Your task to perform on an android device: open app "Google Find My Device" (install if not already installed) Image 0: 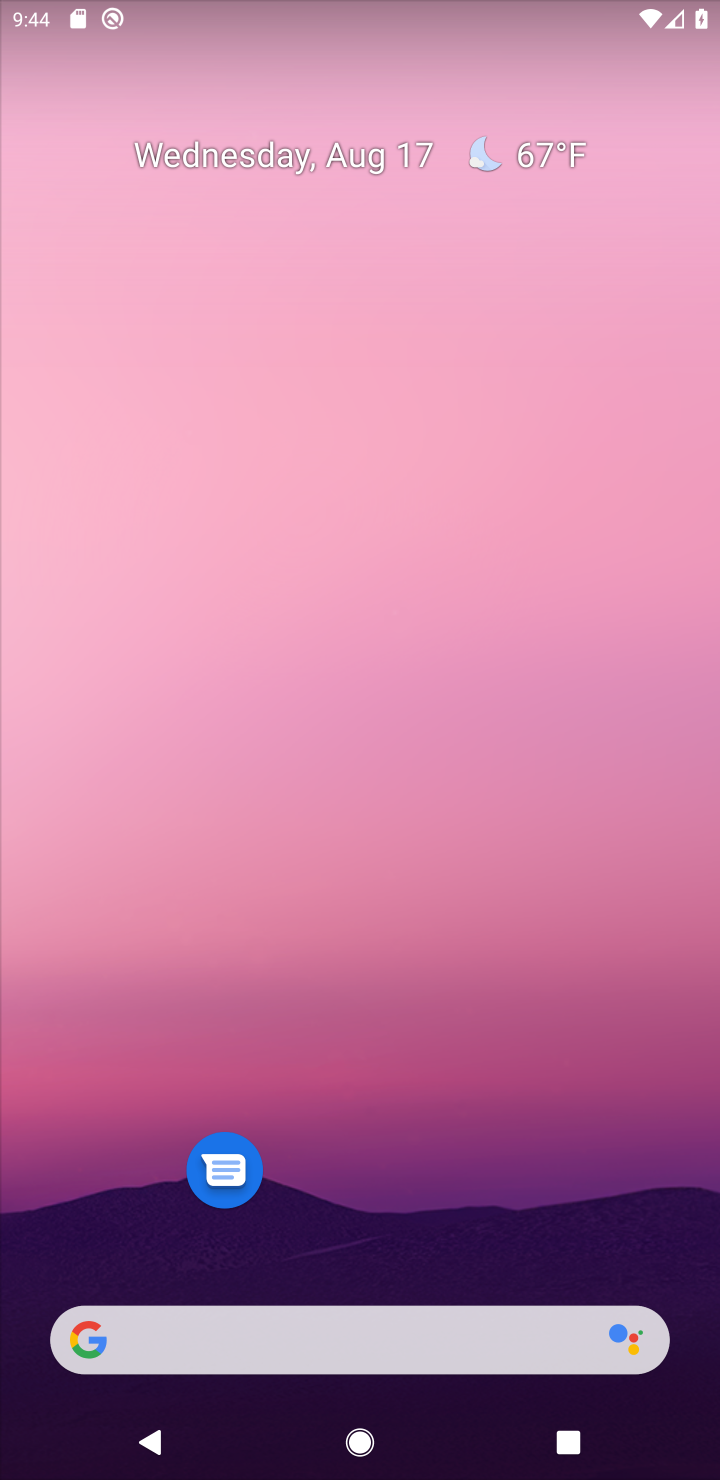
Step 0: drag from (392, 1247) to (394, 219)
Your task to perform on an android device: open app "Google Find My Device" (install if not already installed) Image 1: 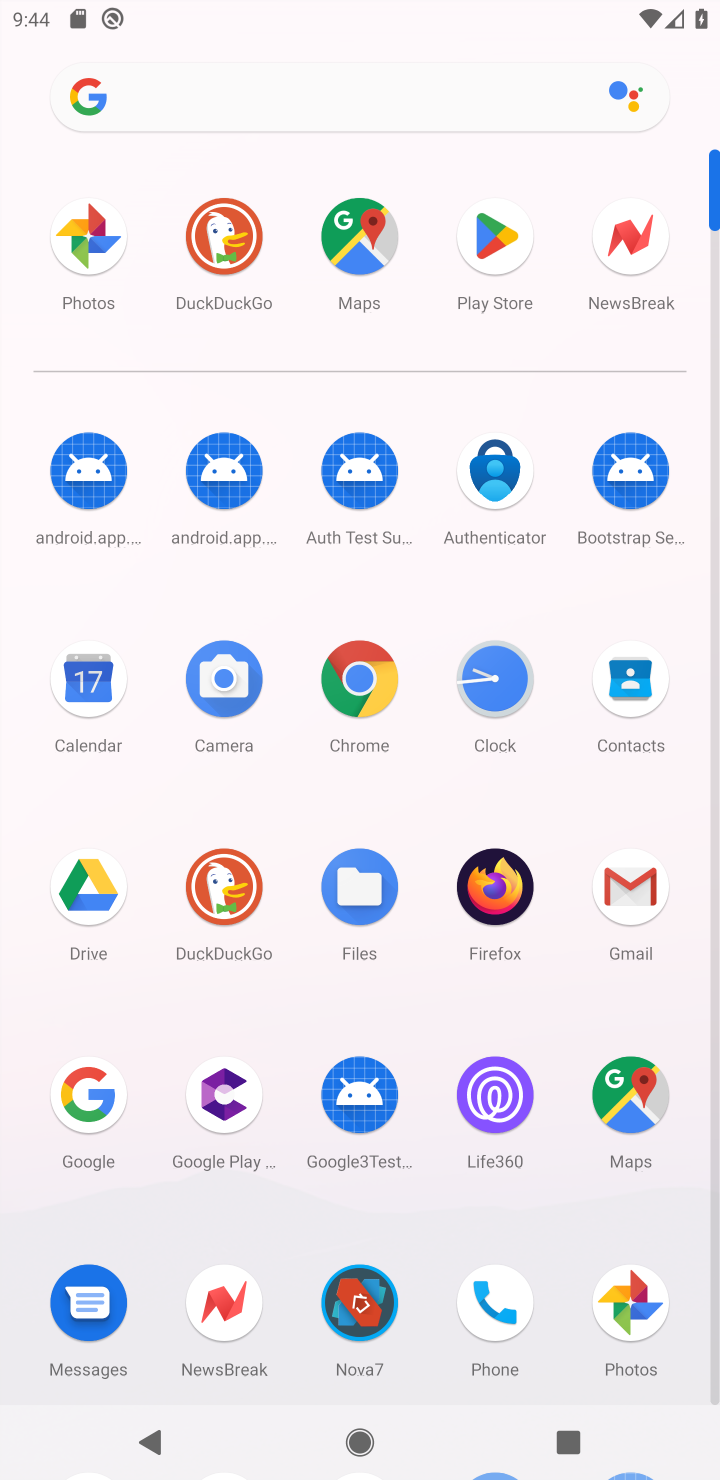
Step 1: click (470, 274)
Your task to perform on an android device: open app "Google Find My Device" (install if not already installed) Image 2: 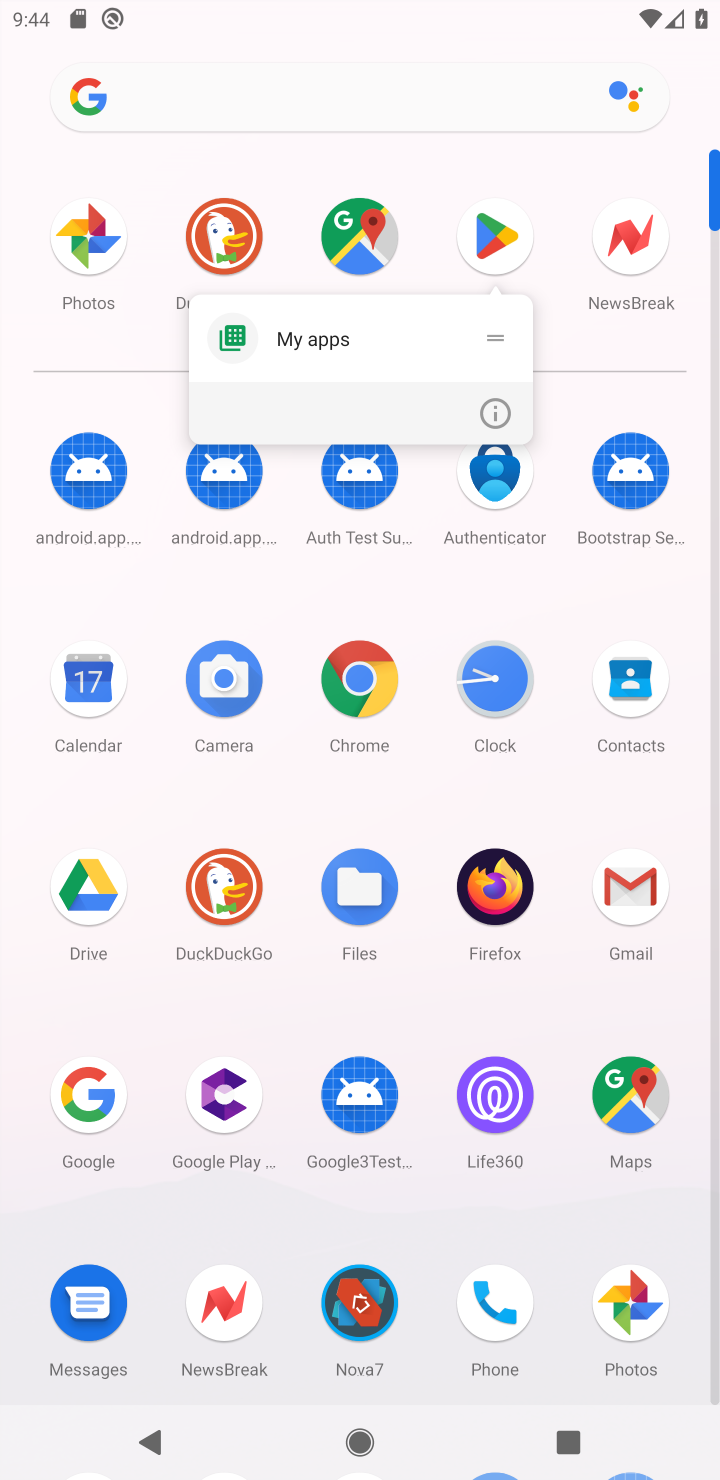
Step 2: click (489, 225)
Your task to perform on an android device: open app "Google Find My Device" (install if not already installed) Image 3: 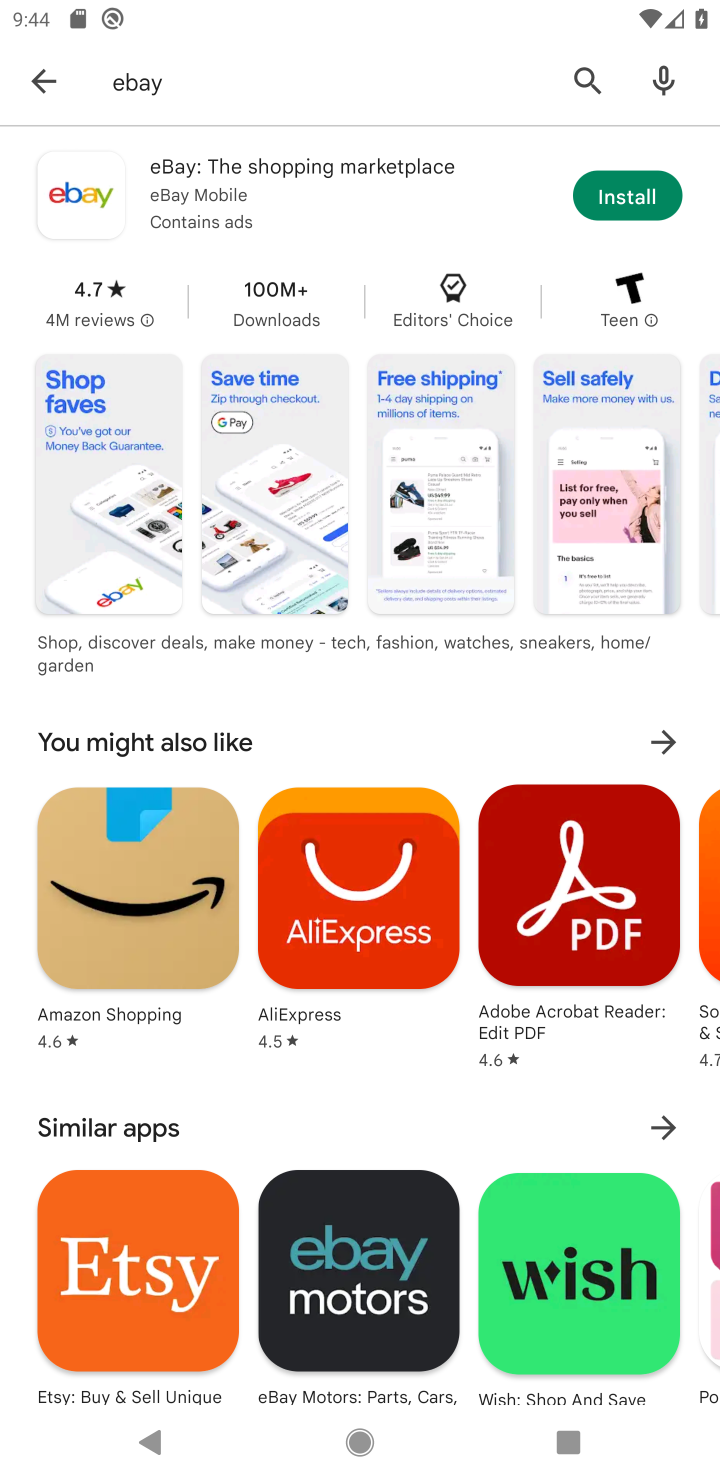
Step 3: click (46, 75)
Your task to perform on an android device: open app "Google Find My Device" (install if not already installed) Image 4: 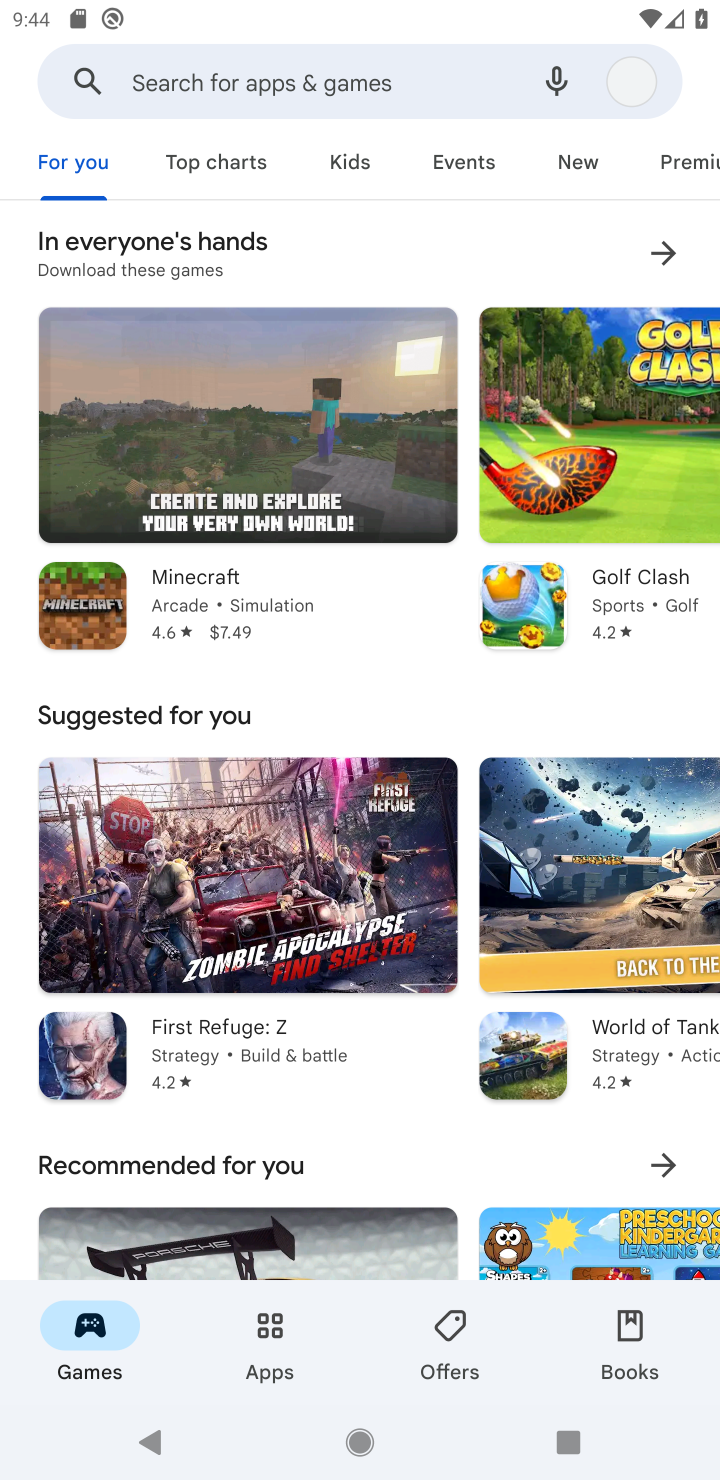
Step 4: click (309, 88)
Your task to perform on an android device: open app "Google Find My Device" (install if not already installed) Image 5: 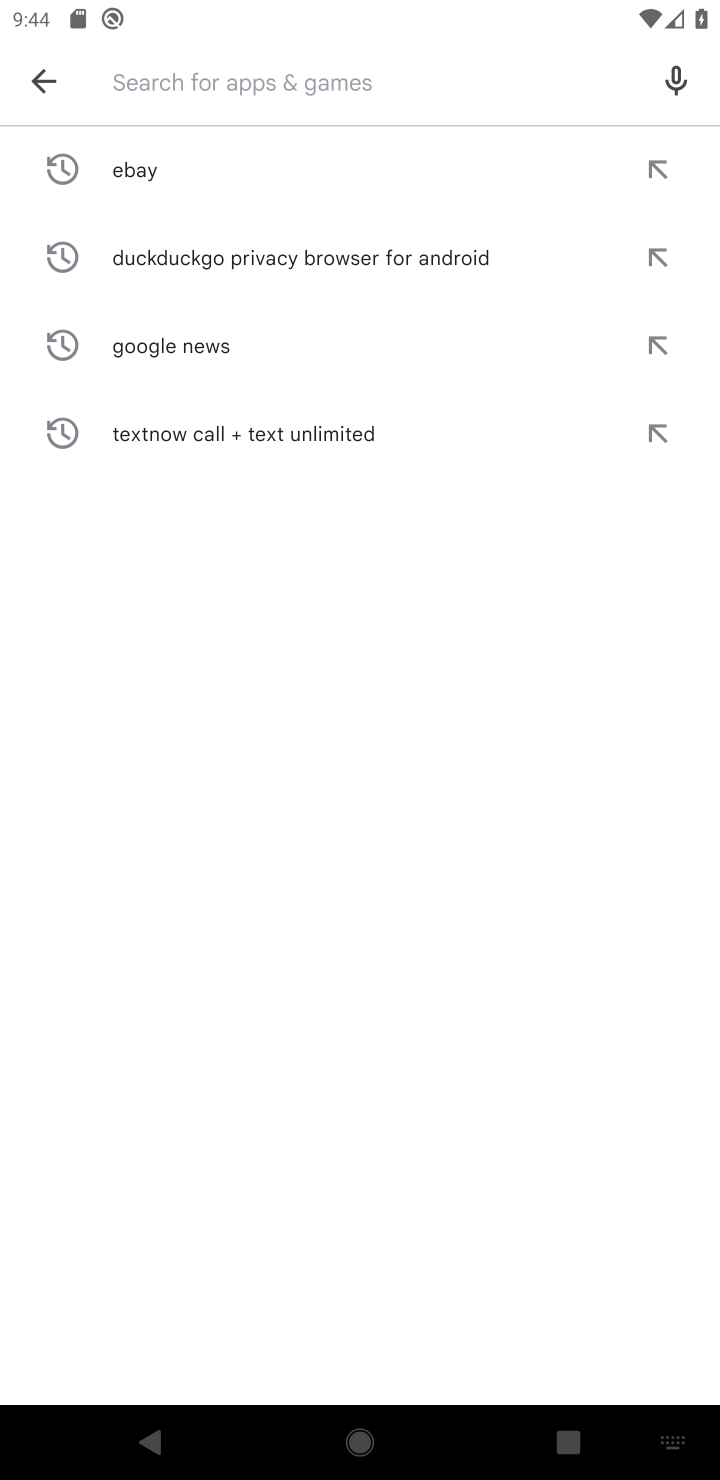
Step 5: type "Google Find My Device"
Your task to perform on an android device: open app "Google Find My Device" (install if not already installed) Image 6: 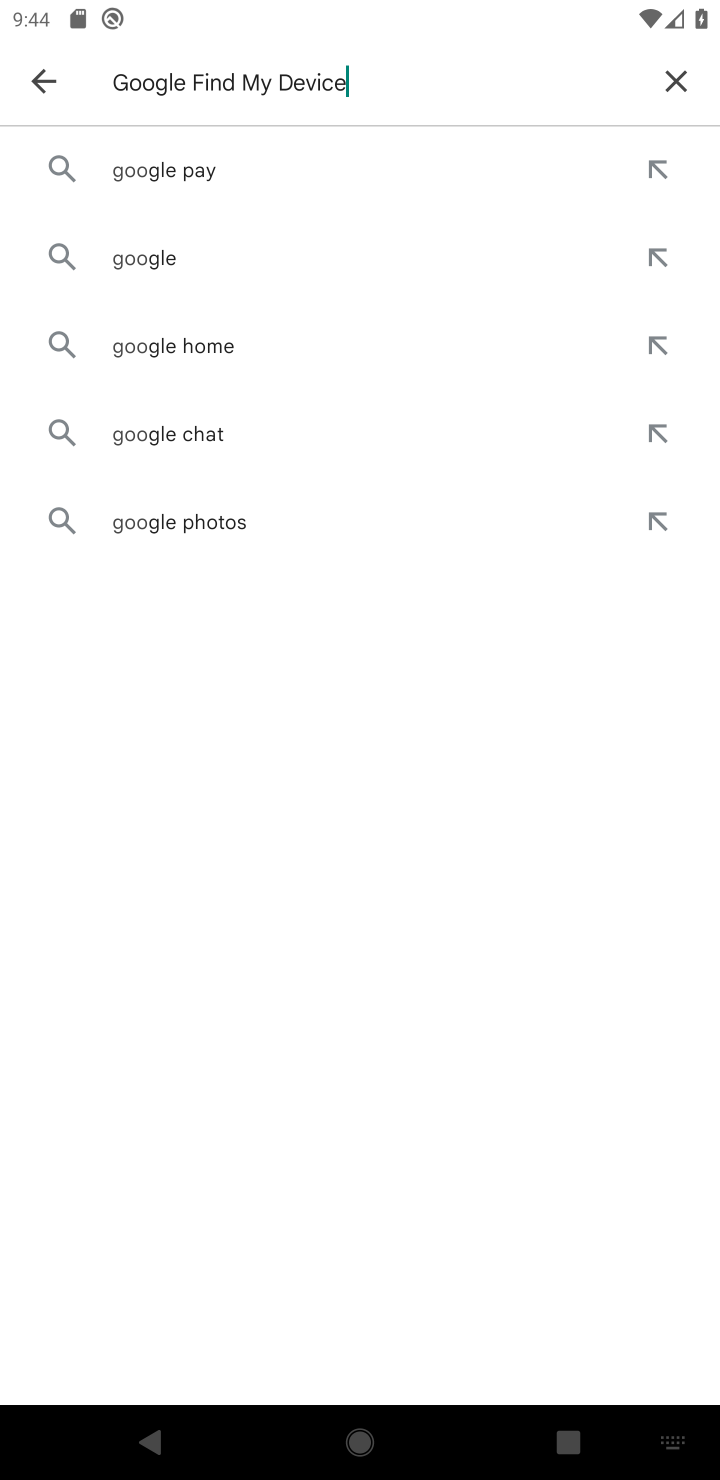
Step 6: type ""
Your task to perform on an android device: open app "Google Find My Device" (install if not already installed) Image 7: 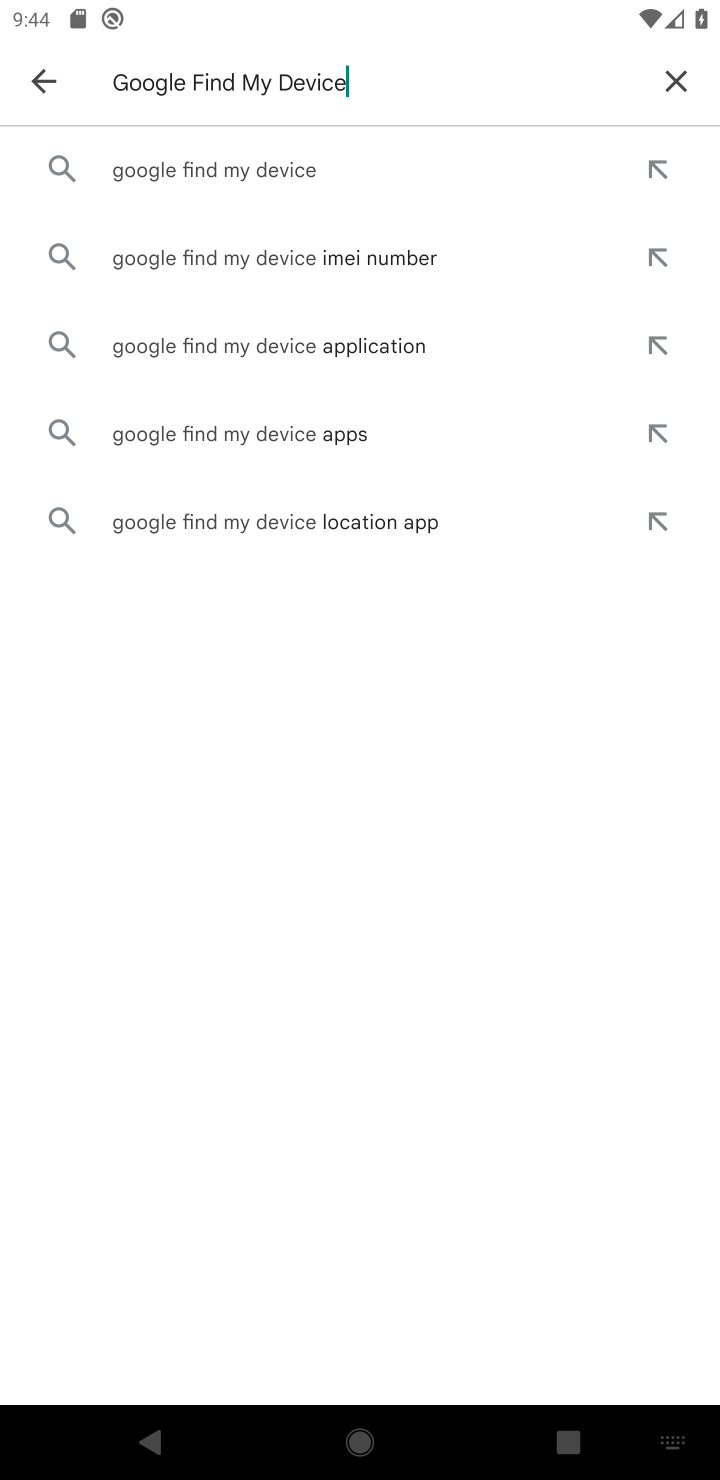
Step 7: click (145, 160)
Your task to perform on an android device: open app "Google Find My Device" (install if not already installed) Image 8: 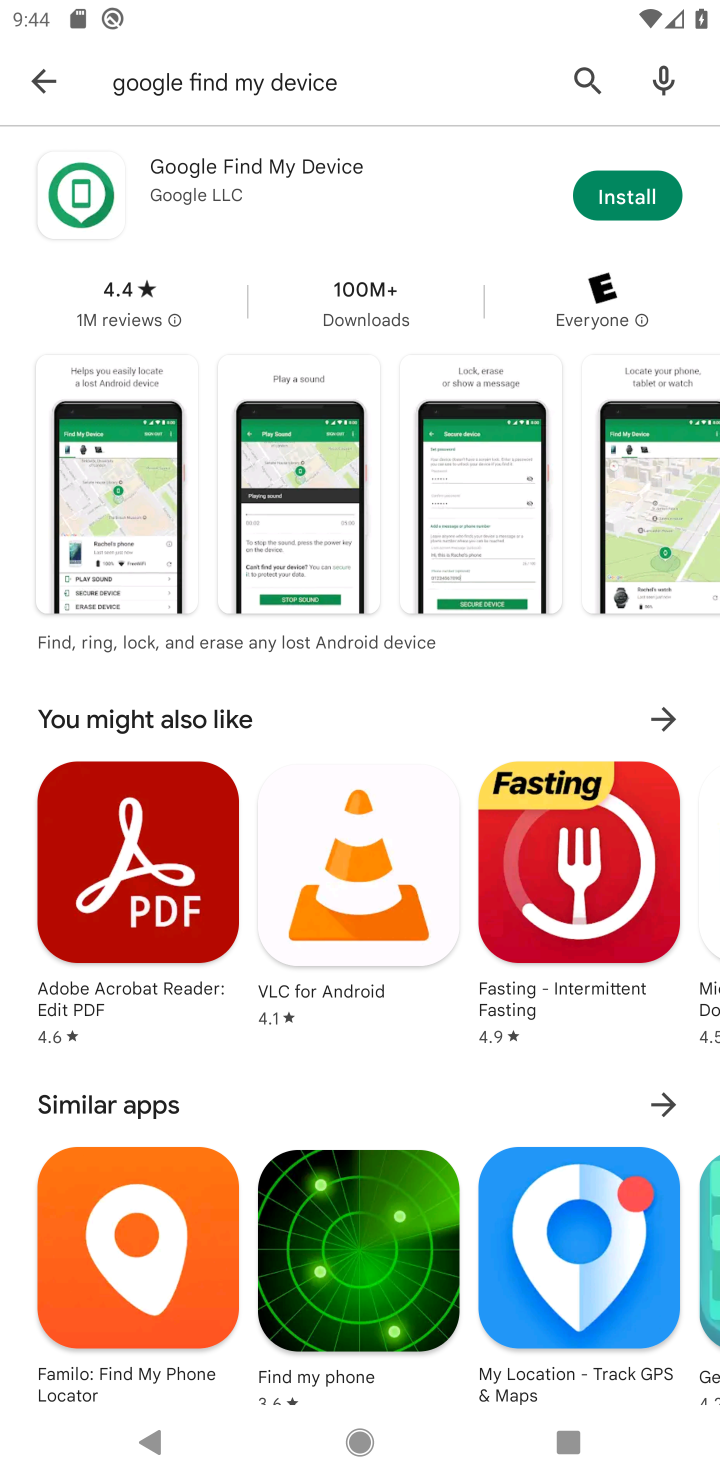
Step 8: click (606, 216)
Your task to perform on an android device: open app "Google Find My Device" (install if not already installed) Image 9: 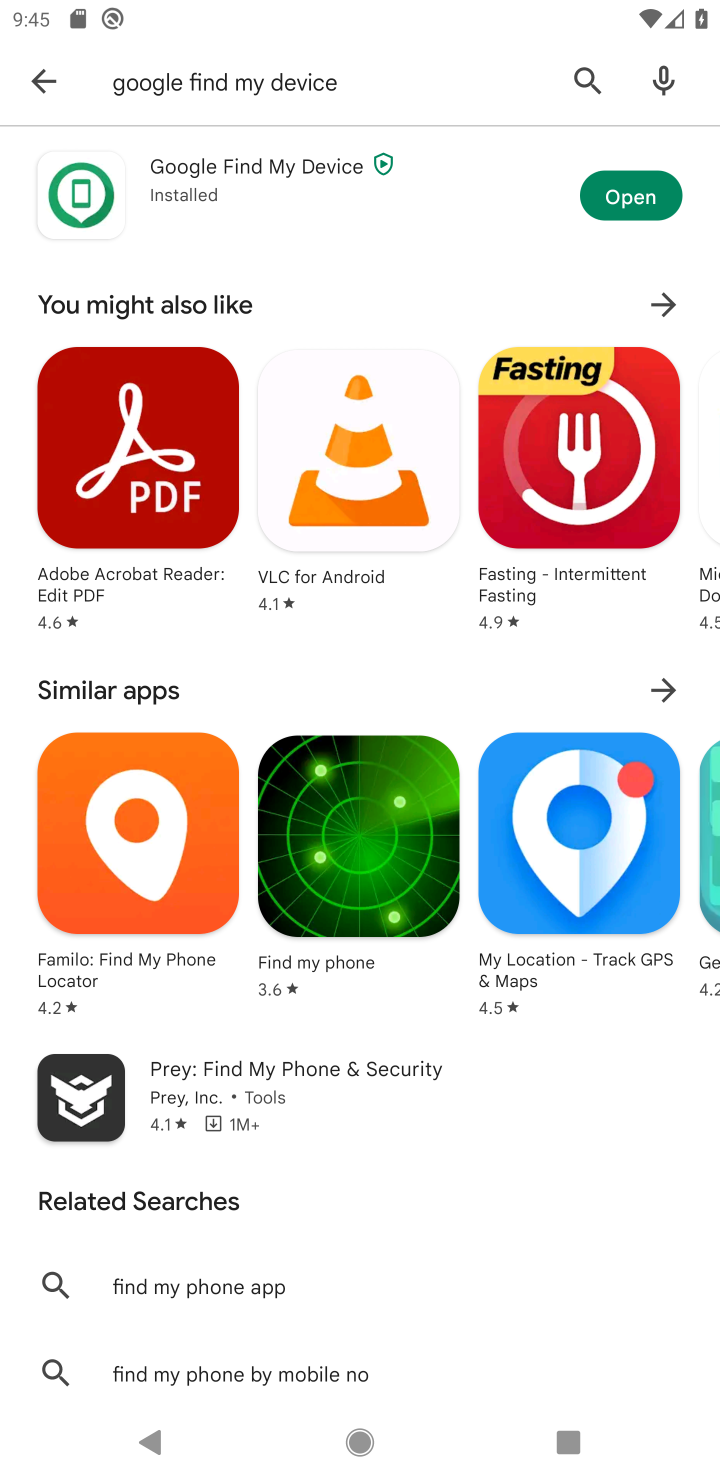
Step 9: click (655, 189)
Your task to perform on an android device: open app "Google Find My Device" (install if not already installed) Image 10: 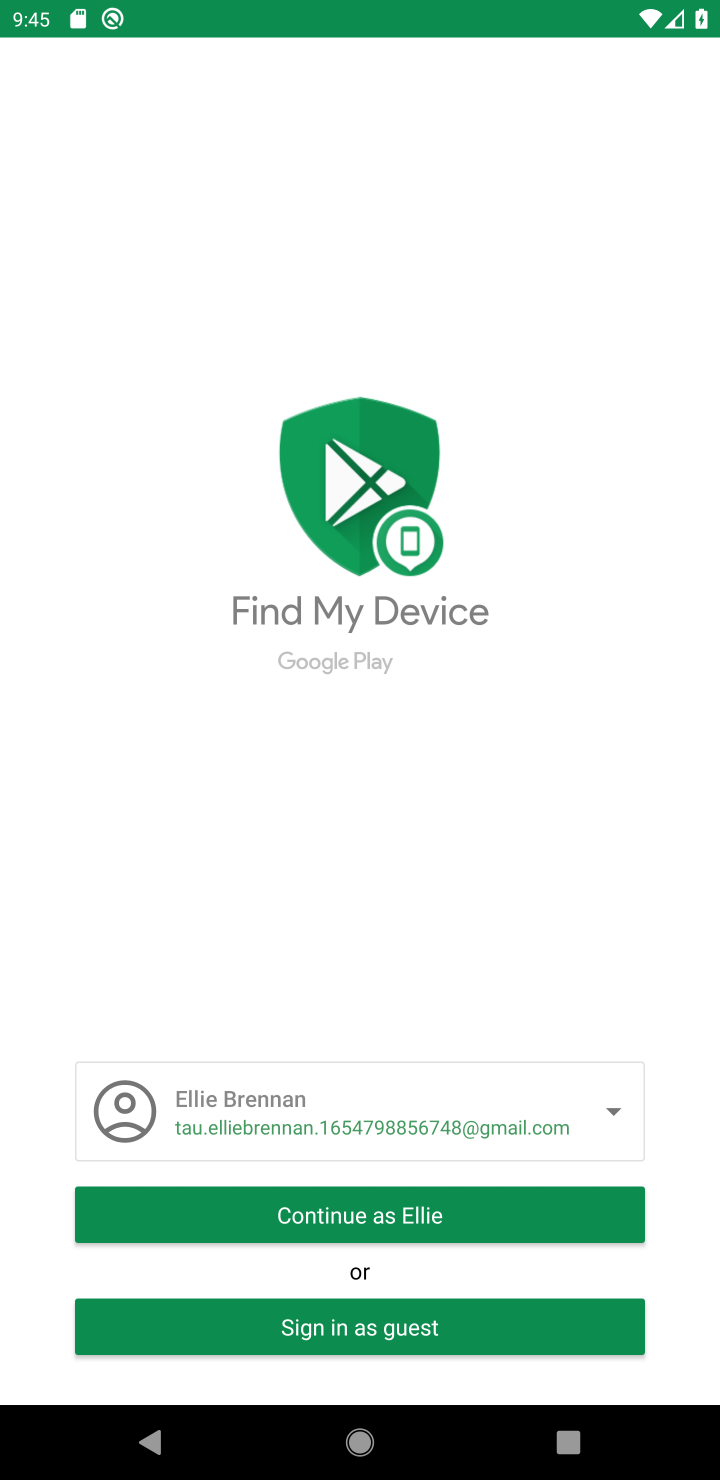
Step 10: task complete